Your task to perform on an android device: turn off airplane mode Image 0: 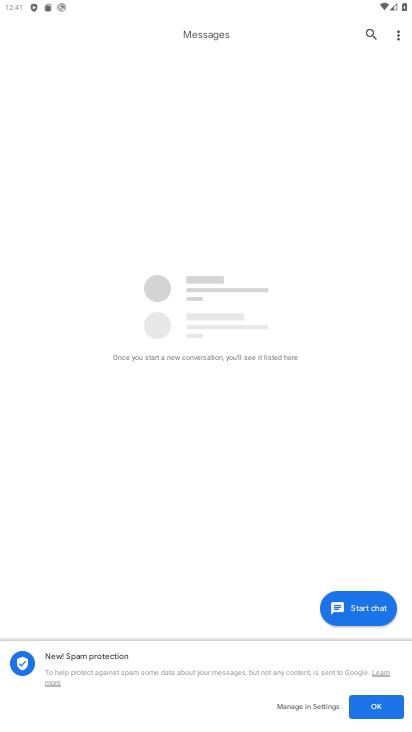
Step 0: press home button
Your task to perform on an android device: turn off airplane mode Image 1: 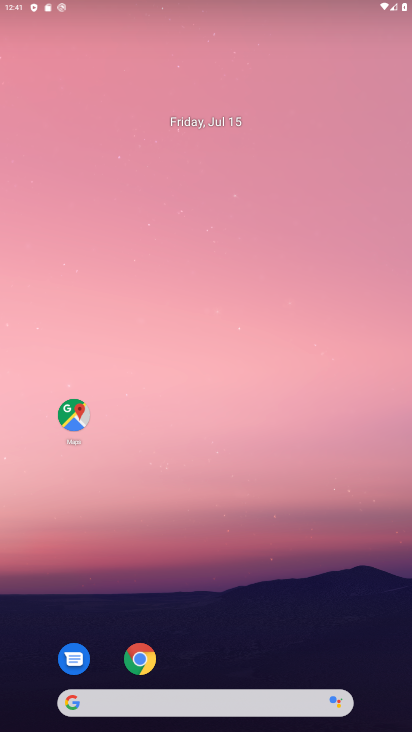
Step 1: drag from (258, 632) to (314, 141)
Your task to perform on an android device: turn off airplane mode Image 2: 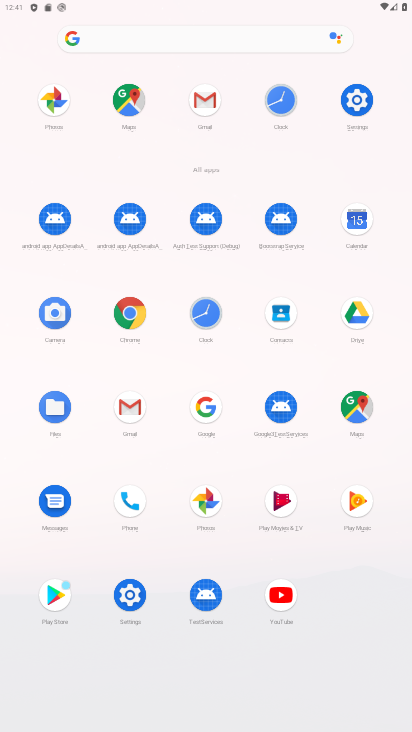
Step 2: click (355, 93)
Your task to perform on an android device: turn off airplane mode Image 3: 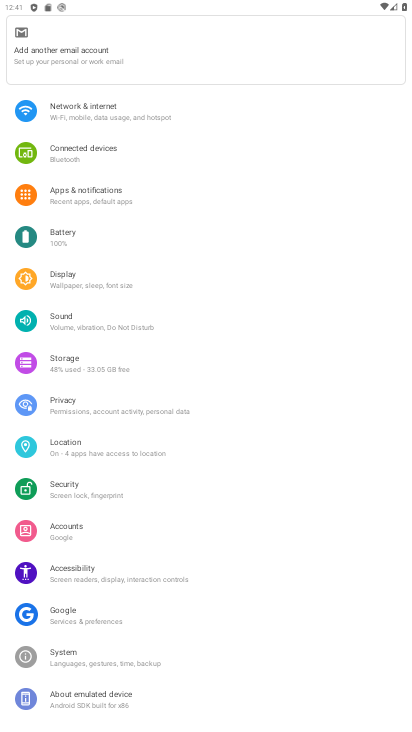
Step 3: click (130, 114)
Your task to perform on an android device: turn off airplane mode Image 4: 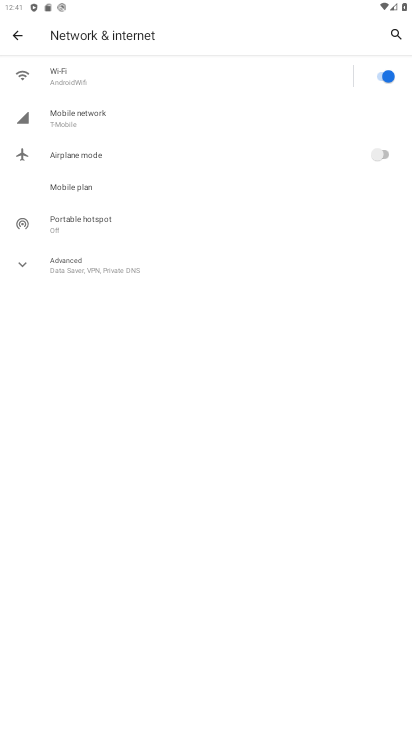
Step 4: task complete